Your task to perform on an android device: Open the Play Movies app and select the watchlist tab. Image 0: 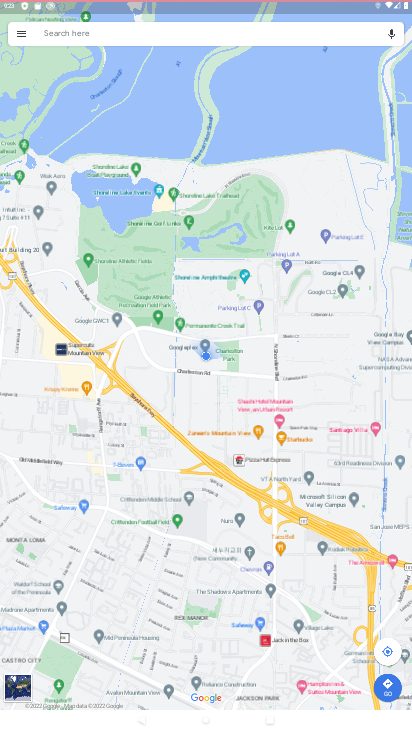
Step 0: press home button
Your task to perform on an android device: Open the Play Movies app and select the watchlist tab. Image 1: 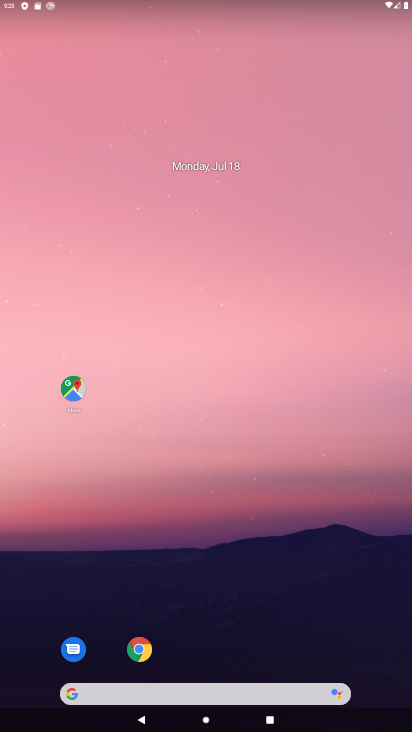
Step 1: drag from (126, 383) to (294, 79)
Your task to perform on an android device: Open the Play Movies app and select the watchlist tab. Image 2: 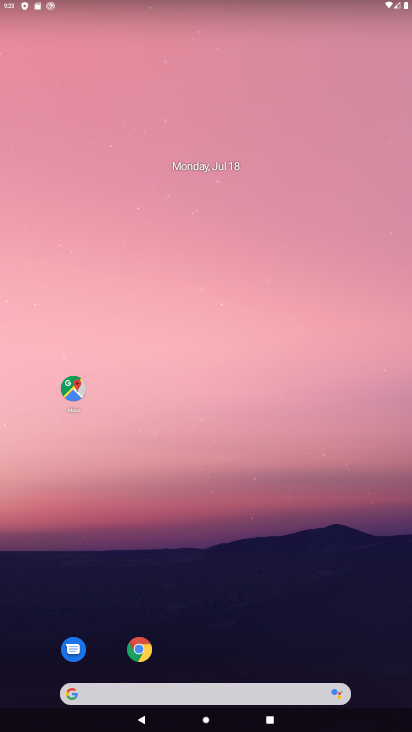
Step 2: drag from (3, 702) to (279, 81)
Your task to perform on an android device: Open the Play Movies app and select the watchlist tab. Image 3: 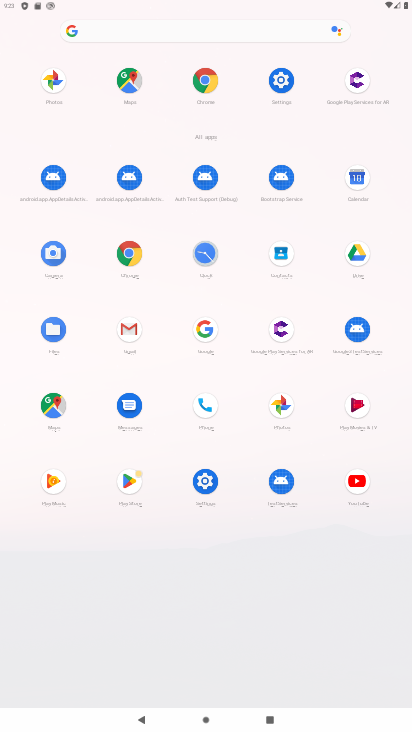
Step 3: click (343, 411)
Your task to perform on an android device: Open the Play Movies app and select the watchlist tab. Image 4: 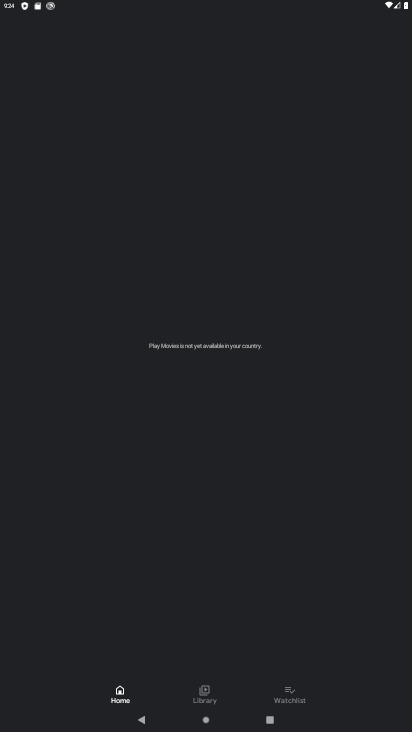
Step 4: task complete